Your task to perform on an android device: delete location history Image 0: 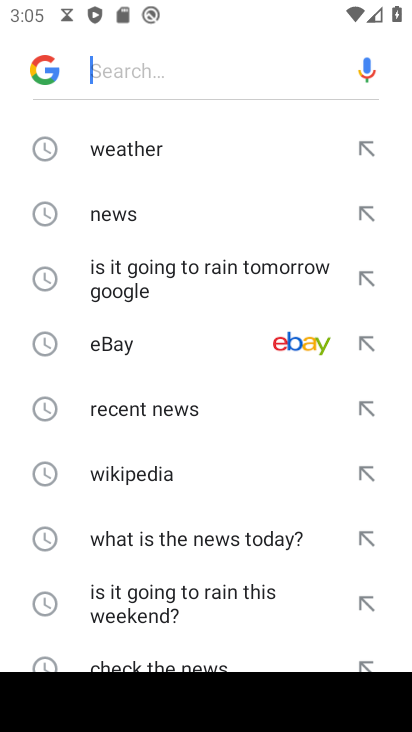
Step 0: press back button
Your task to perform on an android device: delete location history Image 1: 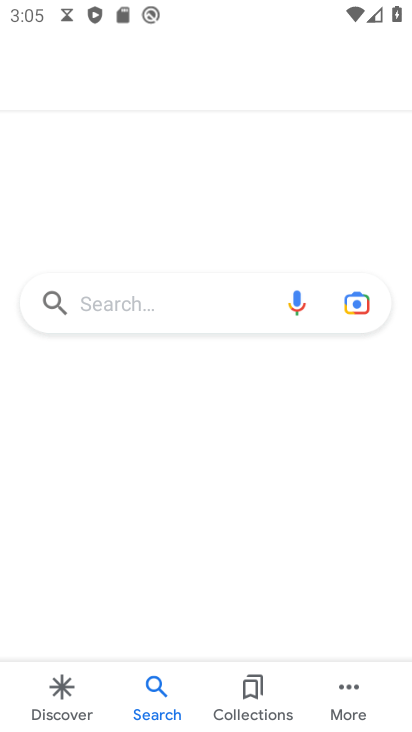
Step 1: press home button
Your task to perform on an android device: delete location history Image 2: 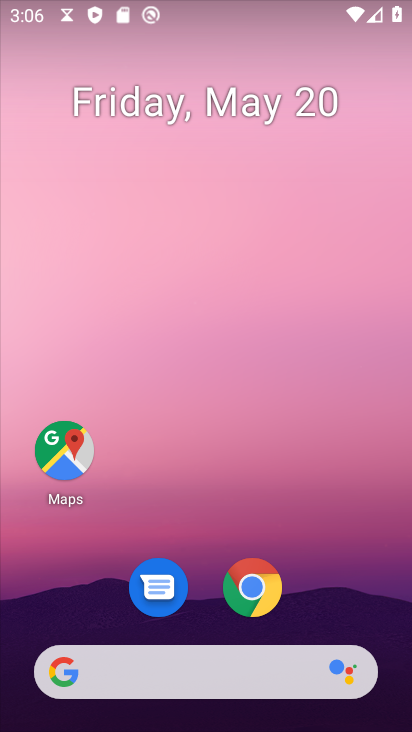
Step 2: drag from (265, 519) to (251, 82)
Your task to perform on an android device: delete location history Image 3: 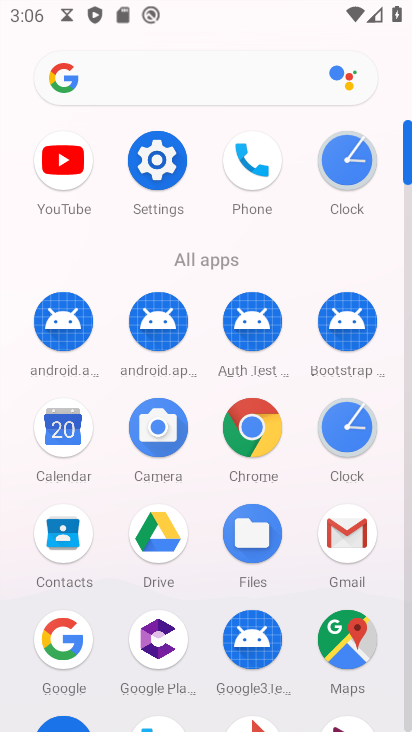
Step 3: click (363, 633)
Your task to perform on an android device: delete location history Image 4: 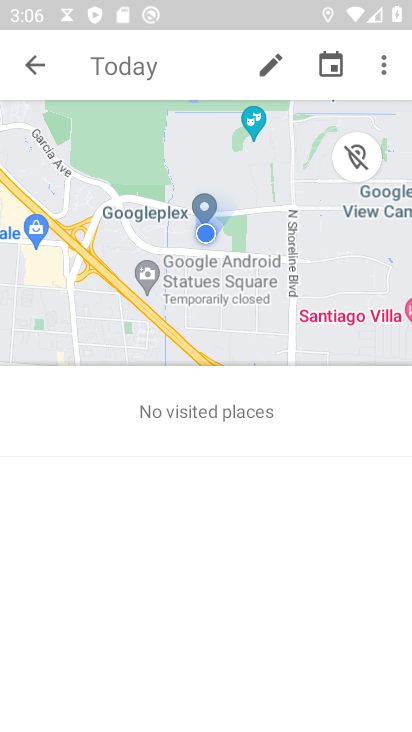
Step 4: click (383, 62)
Your task to perform on an android device: delete location history Image 5: 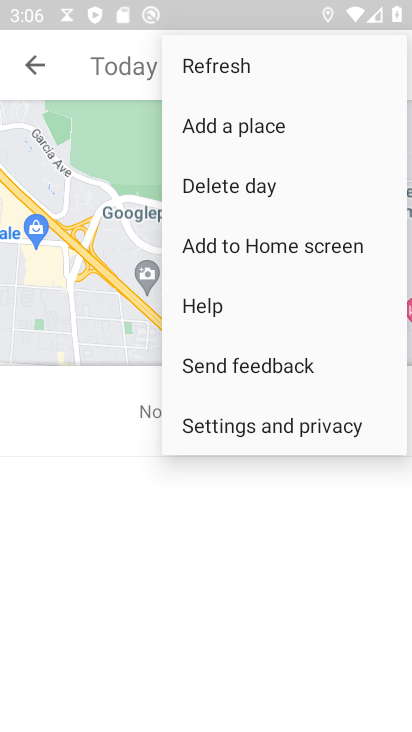
Step 5: click (341, 442)
Your task to perform on an android device: delete location history Image 6: 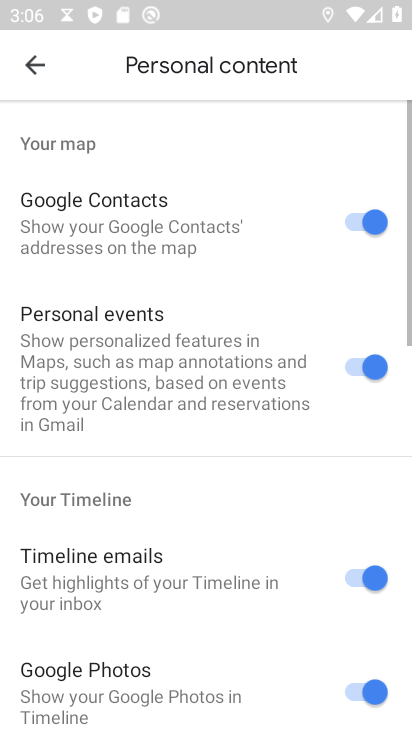
Step 6: drag from (269, 664) to (239, 138)
Your task to perform on an android device: delete location history Image 7: 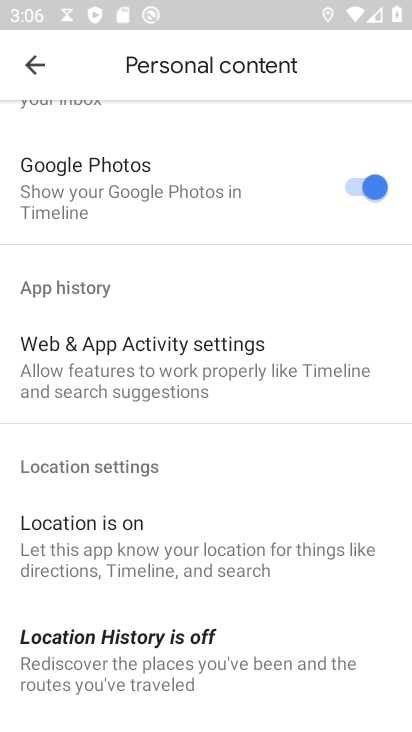
Step 7: drag from (316, 665) to (286, 283)
Your task to perform on an android device: delete location history Image 8: 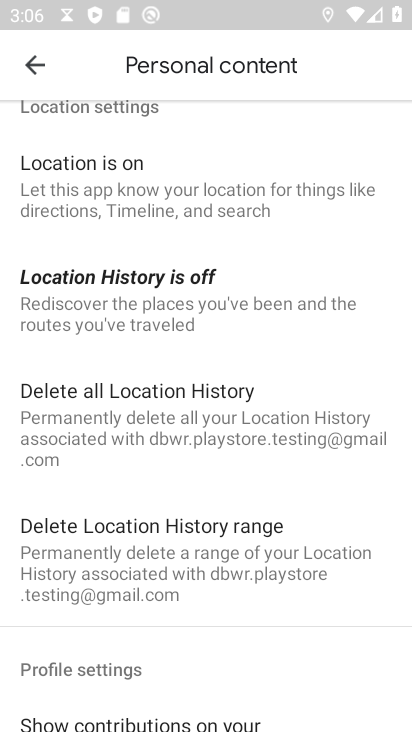
Step 8: click (275, 426)
Your task to perform on an android device: delete location history Image 9: 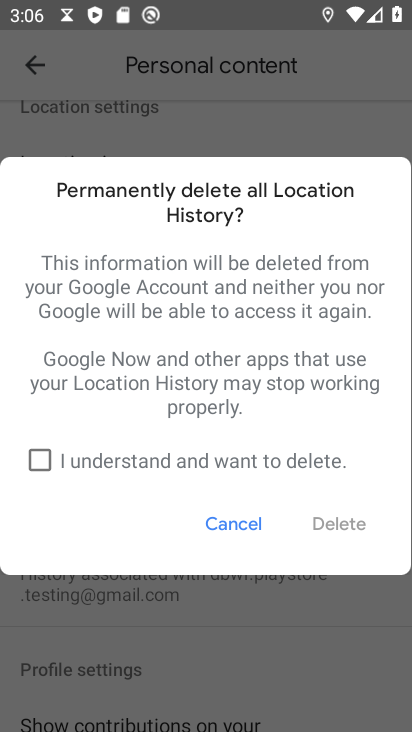
Step 9: click (281, 456)
Your task to perform on an android device: delete location history Image 10: 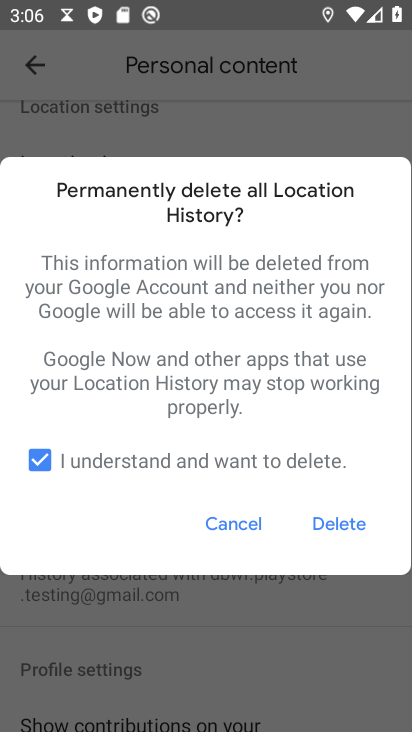
Step 10: click (361, 520)
Your task to perform on an android device: delete location history Image 11: 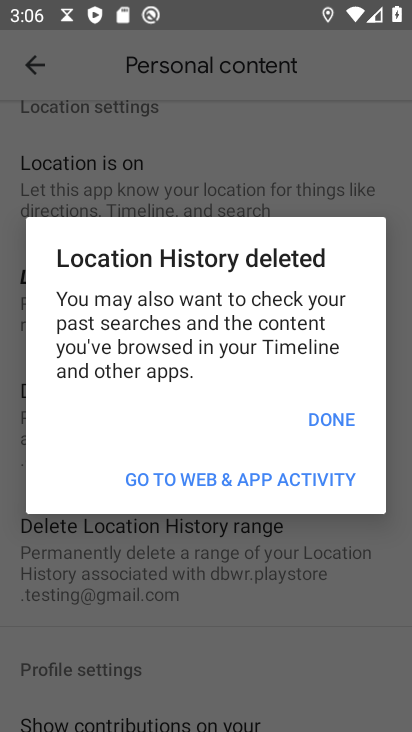
Step 11: click (335, 428)
Your task to perform on an android device: delete location history Image 12: 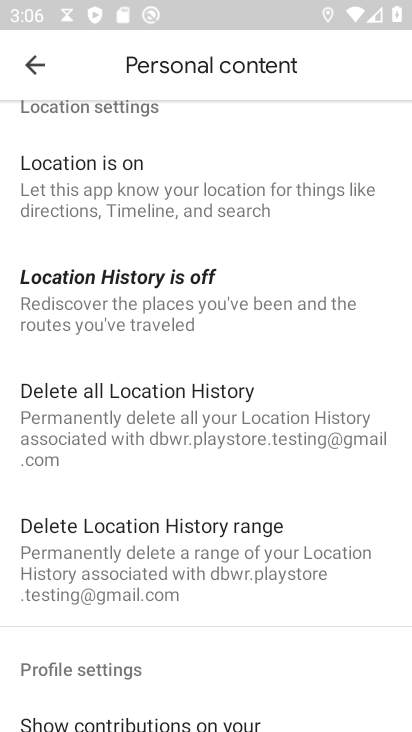
Step 12: task complete